Your task to perform on an android device: check data usage Image 0: 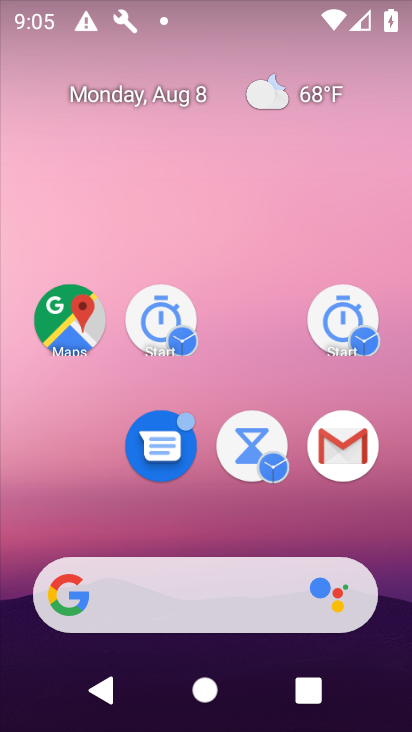
Step 0: click (229, 383)
Your task to perform on an android device: check data usage Image 1: 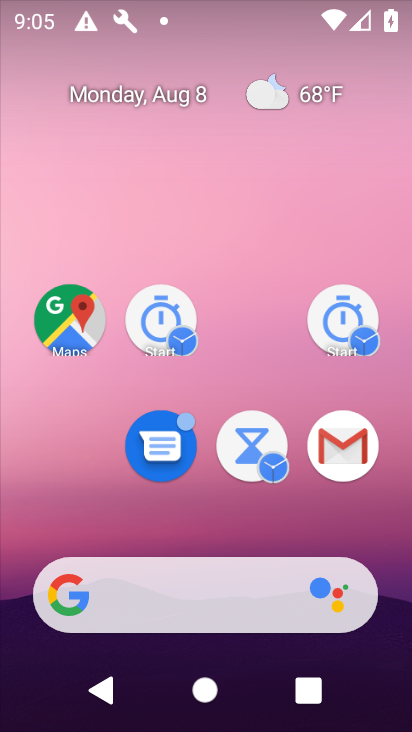
Step 1: drag from (294, 670) to (247, 326)
Your task to perform on an android device: check data usage Image 2: 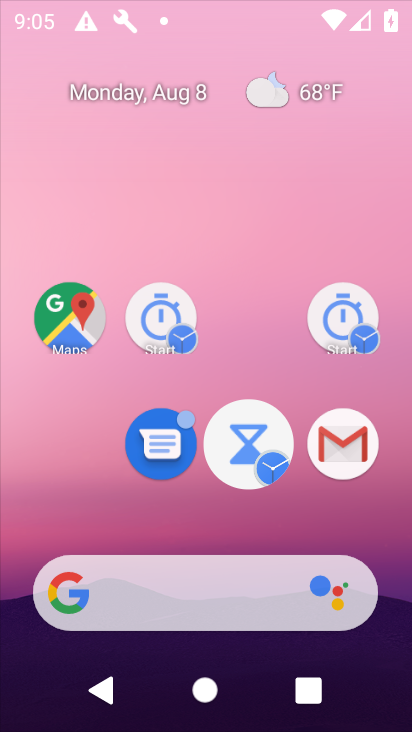
Step 2: drag from (274, 636) to (266, 270)
Your task to perform on an android device: check data usage Image 3: 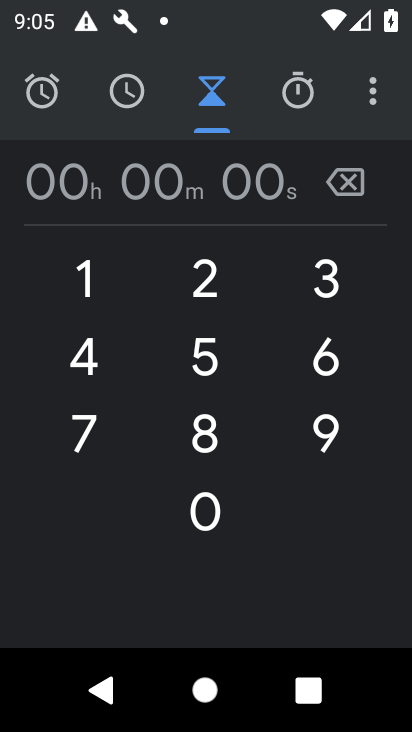
Step 3: drag from (263, 569) to (271, 307)
Your task to perform on an android device: check data usage Image 4: 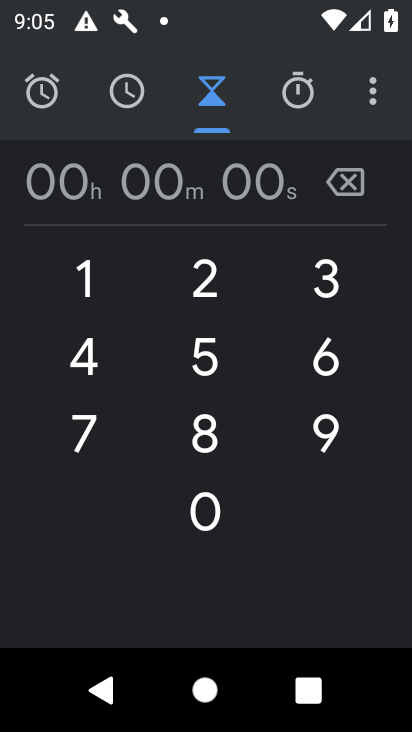
Step 4: press back button
Your task to perform on an android device: check data usage Image 5: 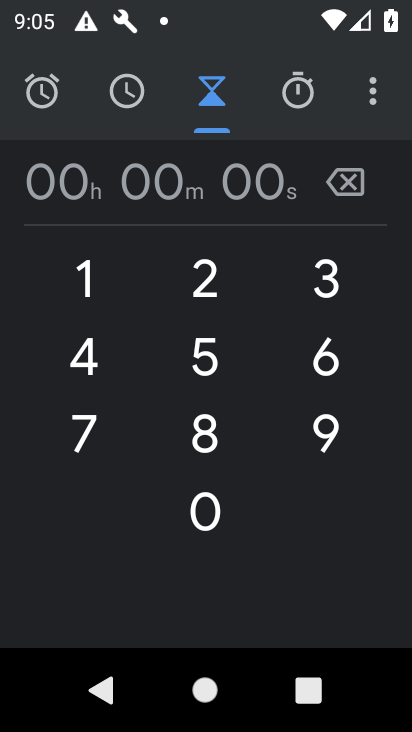
Step 5: press back button
Your task to perform on an android device: check data usage Image 6: 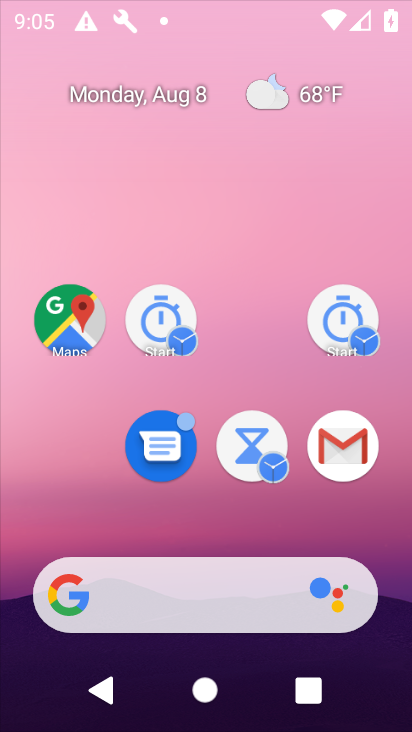
Step 6: press back button
Your task to perform on an android device: check data usage Image 7: 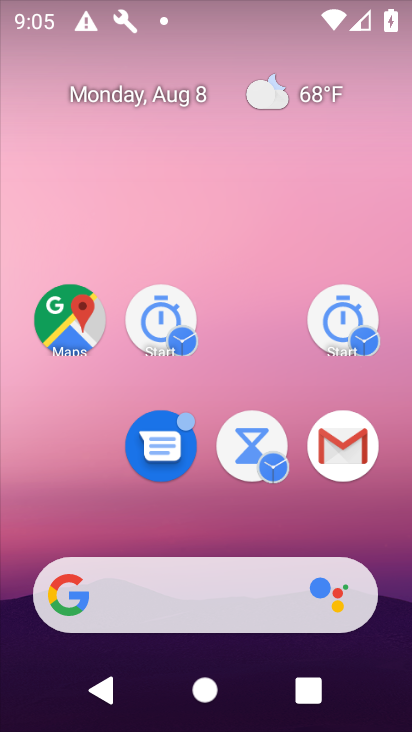
Step 7: drag from (175, 461) to (124, 183)
Your task to perform on an android device: check data usage Image 8: 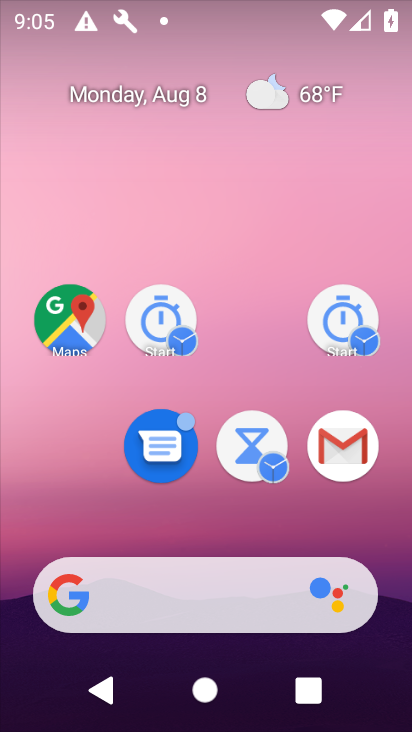
Step 8: drag from (209, 508) to (188, 217)
Your task to perform on an android device: check data usage Image 9: 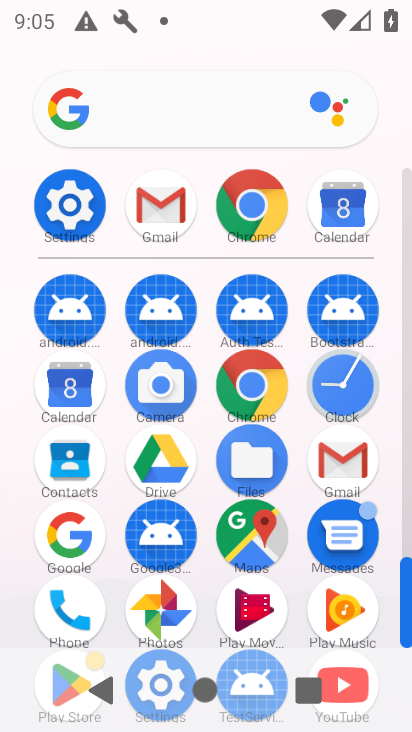
Step 9: click (81, 208)
Your task to perform on an android device: check data usage Image 10: 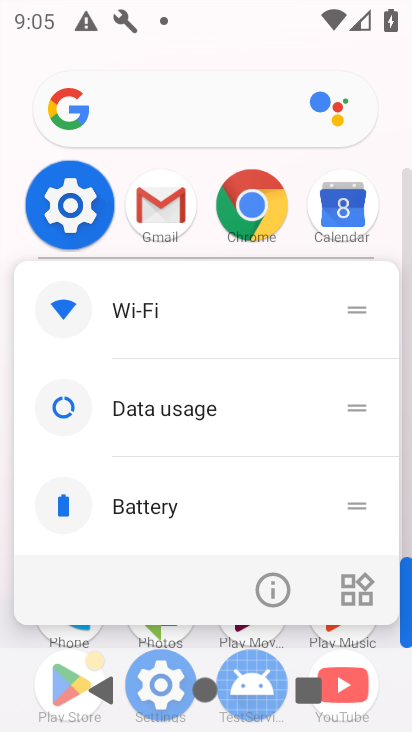
Step 10: click (76, 209)
Your task to perform on an android device: check data usage Image 11: 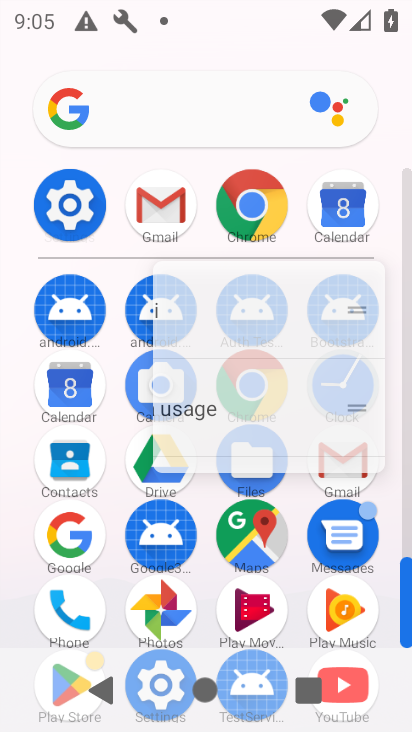
Step 11: click (77, 210)
Your task to perform on an android device: check data usage Image 12: 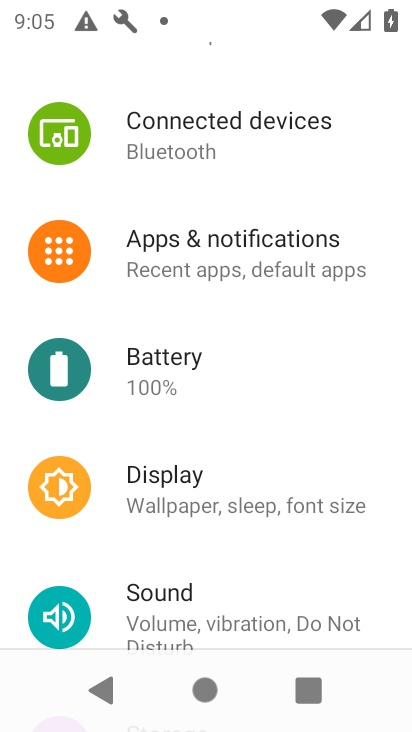
Step 12: drag from (207, 122) to (205, 492)
Your task to perform on an android device: check data usage Image 13: 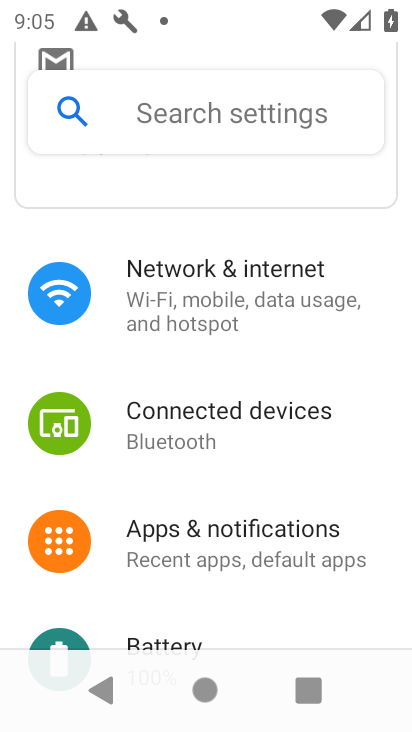
Step 13: drag from (188, 299) to (185, 517)
Your task to perform on an android device: check data usage Image 14: 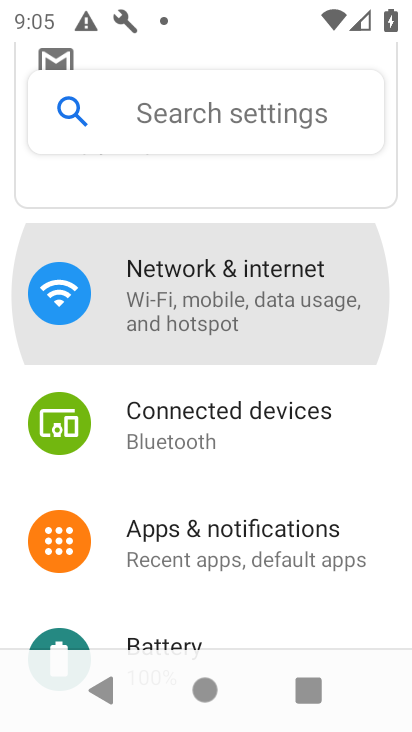
Step 14: drag from (219, 222) to (247, 521)
Your task to perform on an android device: check data usage Image 15: 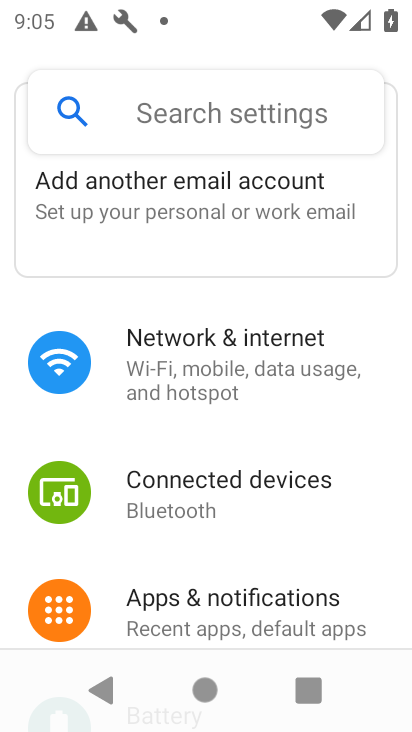
Step 15: click (216, 365)
Your task to perform on an android device: check data usage Image 16: 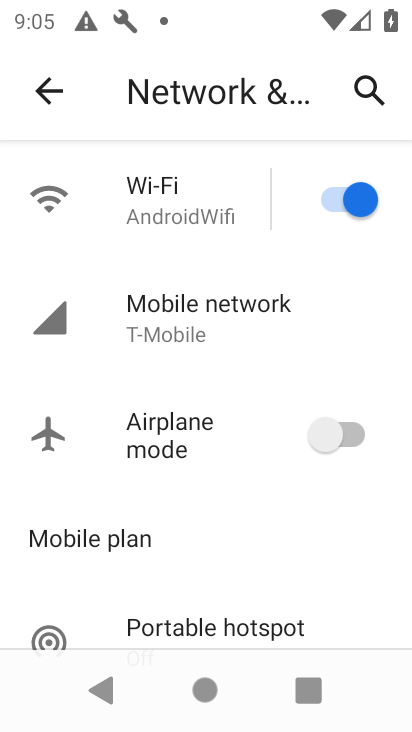
Step 16: drag from (278, 388) to (298, 202)
Your task to perform on an android device: check data usage Image 17: 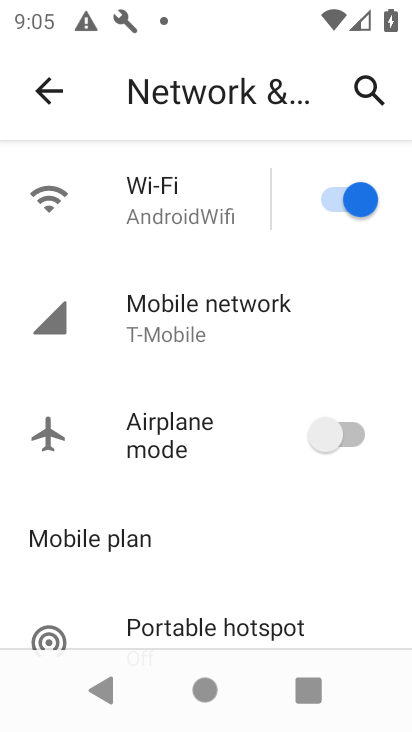
Step 17: click (235, 275)
Your task to perform on an android device: check data usage Image 18: 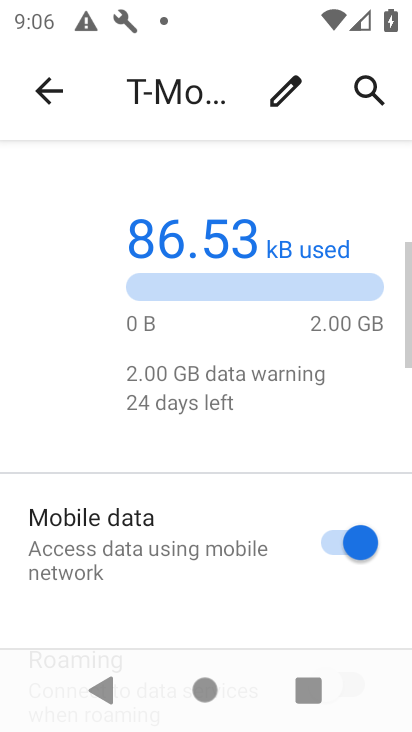
Step 18: click (47, 97)
Your task to perform on an android device: check data usage Image 19: 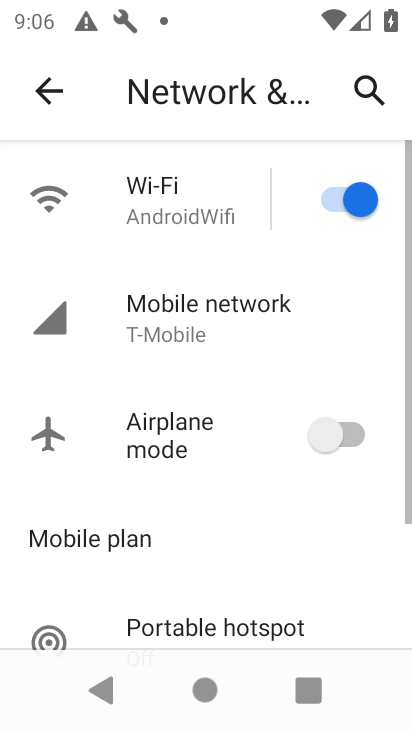
Step 19: click (186, 321)
Your task to perform on an android device: check data usage Image 20: 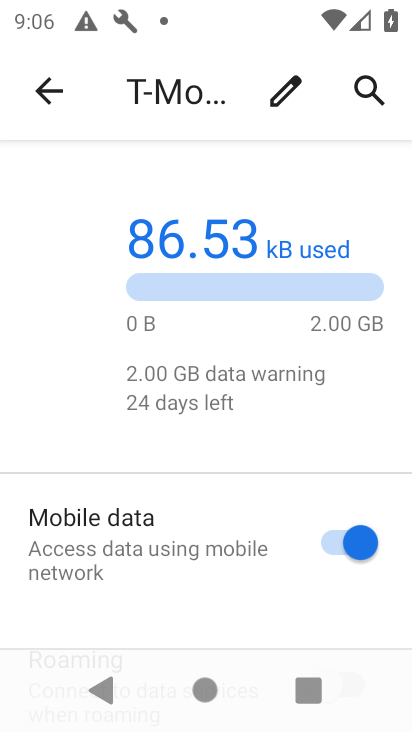
Step 20: task complete